Your task to perform on an android device: turn off picture-in-picture Image 0: 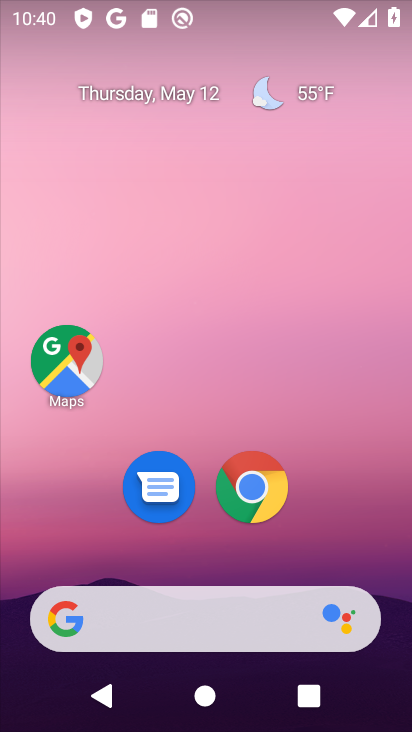
Step 0: click (258, 497)
Your task to perform on an android device: turn off picture-in-picture Image 1: 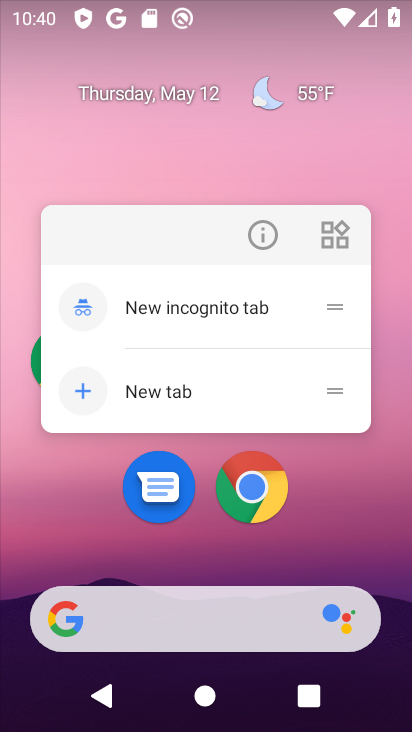
Step 1: click (263, 239)
Your task to perform on an android device: turn off picture-in-picture Image 2: 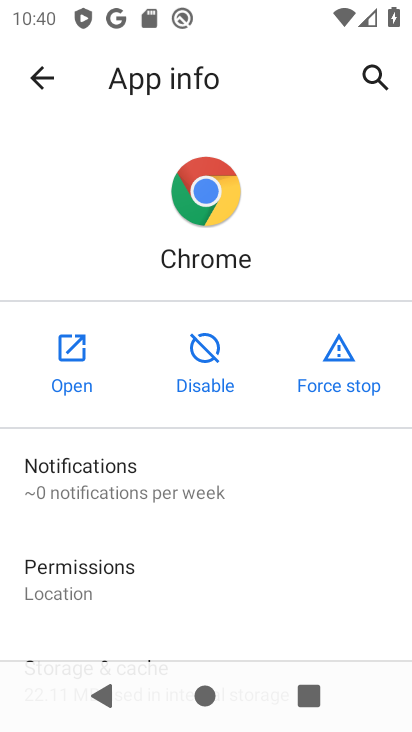
Step 2: drag from (250, 575) to (256, 4)
Your task to perform on an android device: turn off picture-in-picture Image 3: 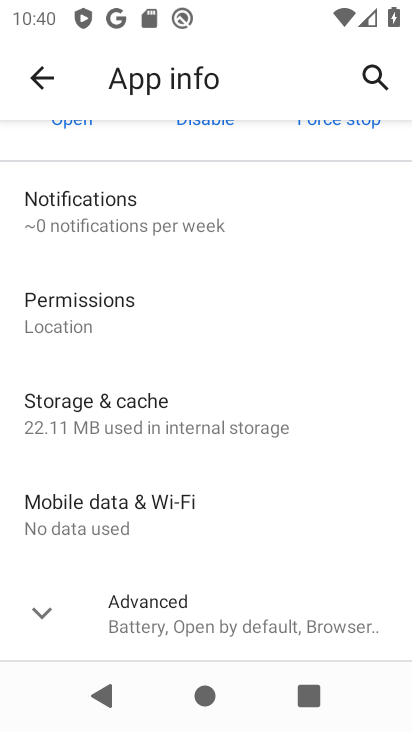
Step 3: click (45, 613)
Your task to perform on an android device: turn off picture-in-picture Image 4: 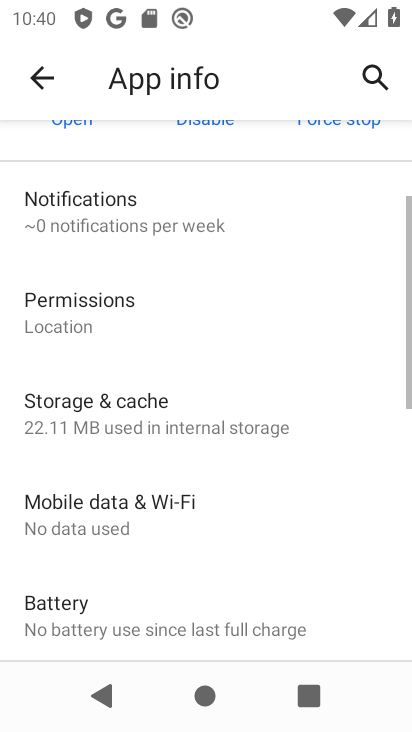
Step 4: drag from (179, 590) to (187, 20)
Your task to perform on an android device: turn off picture-in-picture Image 5: 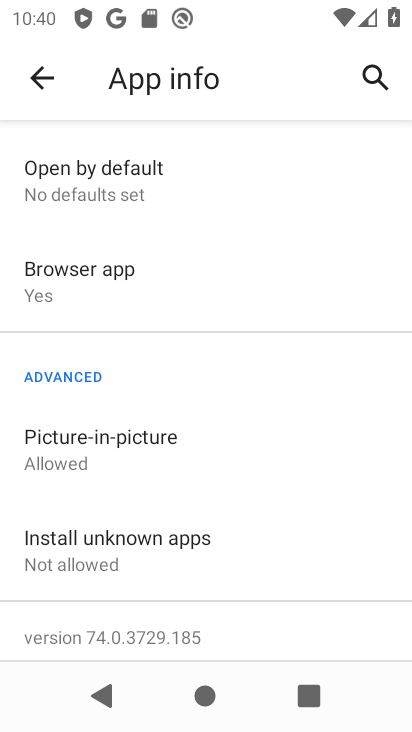
Step 5: click (87, 448)
Your task to perform on an android device: turn off picture-in-picture Image 6: 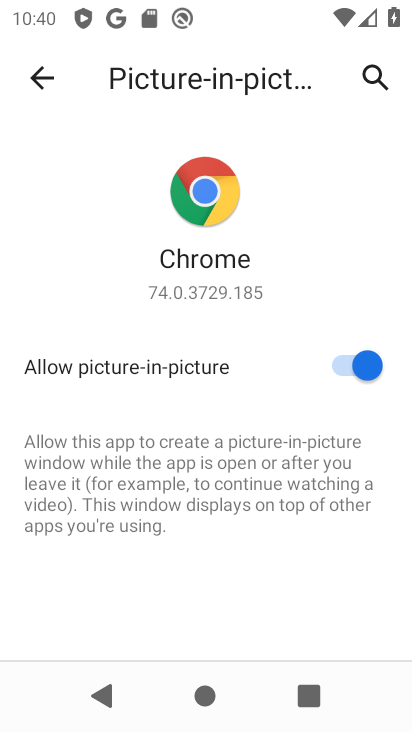
Step 6: click (357, 372)
Your task to perform on an android device: turn off picture-in-picture Image 7: 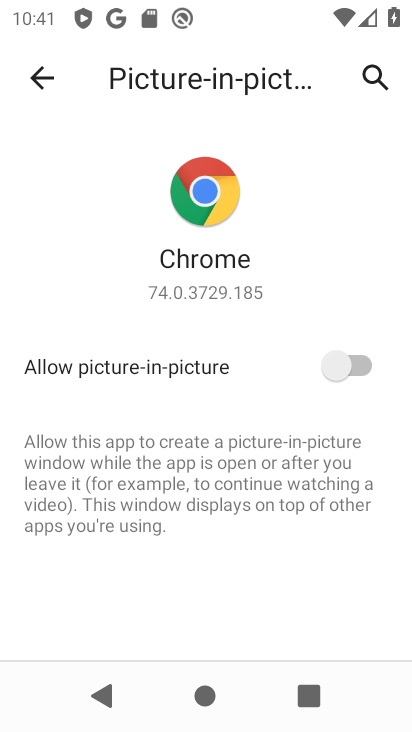
Step 7: task complete